Your task to perform on an android device: When is my next appointment? Image 0: 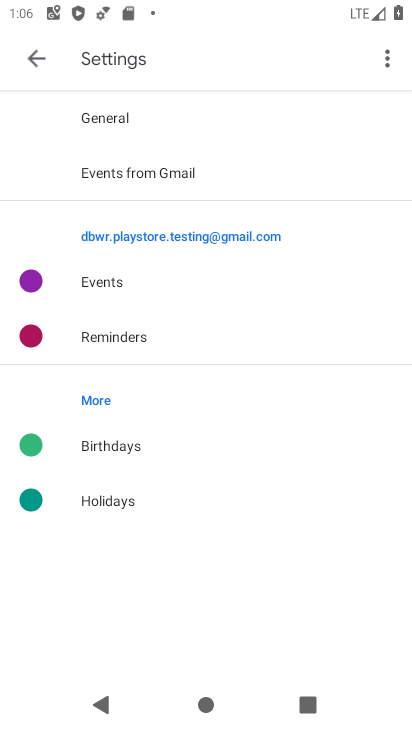
Step 0: press home button
Your task to perform on an android device: When is my next appointment? Image 1: 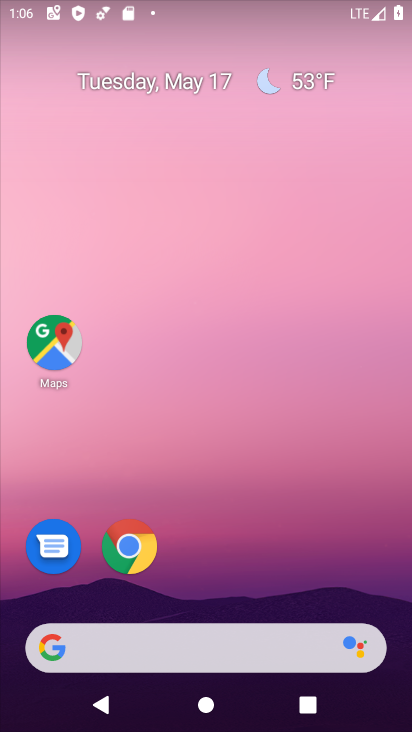
Step 1: drag from (193, 591) to (191, 224)
Your task to perform on an android device: When is my next appointment? Image 2: 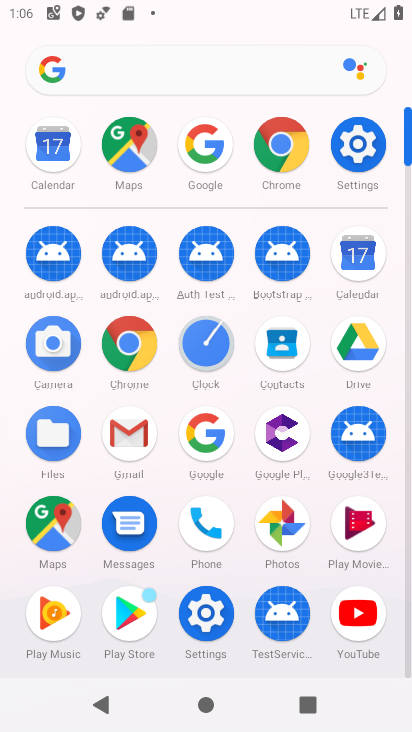
Step 2: click (340, 255)
Your task to perform on an android device: When is my next appointment? Image 3: 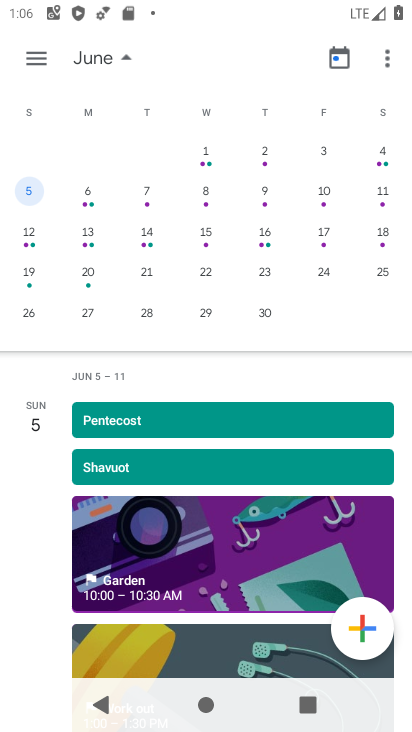
Step 3: click (100, 52)
Your task to perform on an android device: When is my next appointment? Image 4: 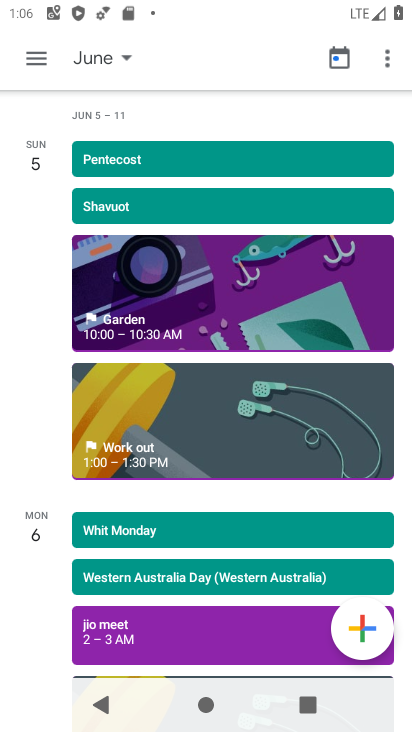
Step 4: click (111, 60)
Your task to perform on an android device: When is my next appointment? Image 5: 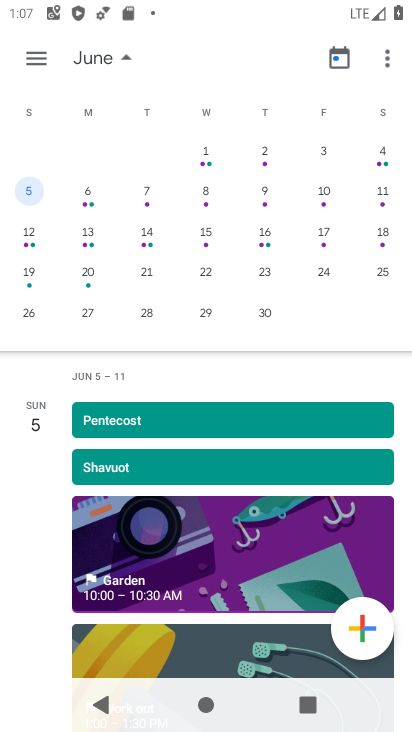
Step 5: task complete